Your task to perform on an android device: Open Google Chrome and click the shortcut for Amazon.com Image 0: 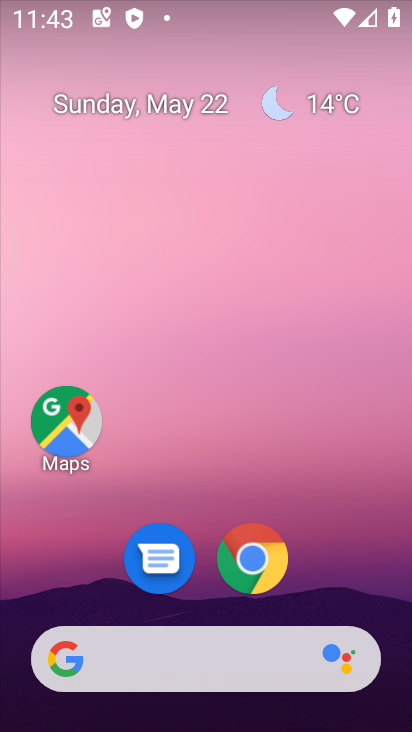
Step 0: click (255, 562)
Your task to perform on an android device: Open Google Chrome and click the shortcut for Amazon.com Image 1: 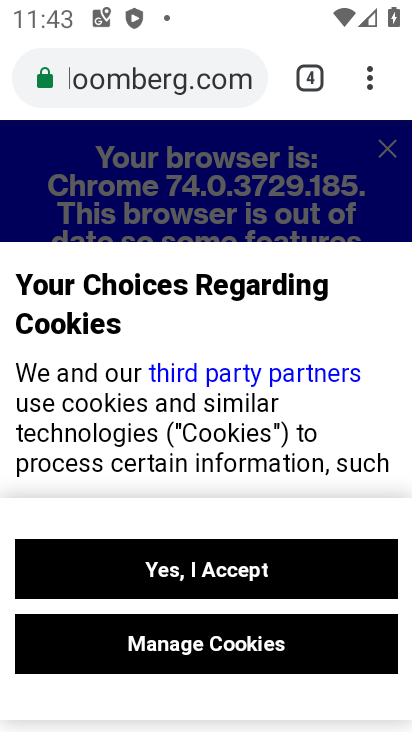
Step 1: click (372, 77)
Your task to perform on an android device: Open Google Chrome and click the shortcut for Amazon.com Image 2: 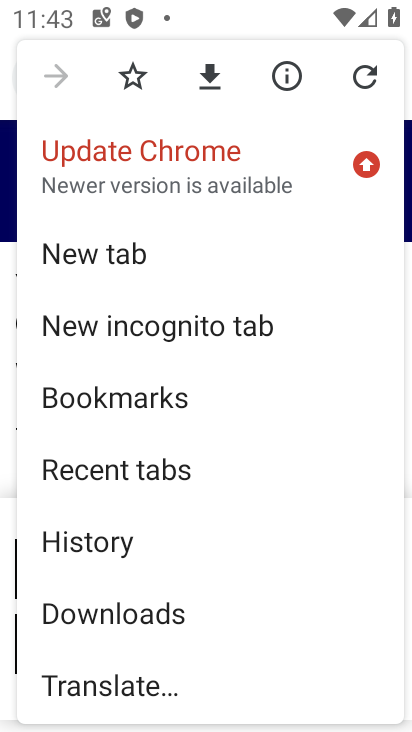
Step 2: click (73, 252)
Your task to perform on an android device: Open Google Chrome and click the shortcut for Amazon.com Image 3: 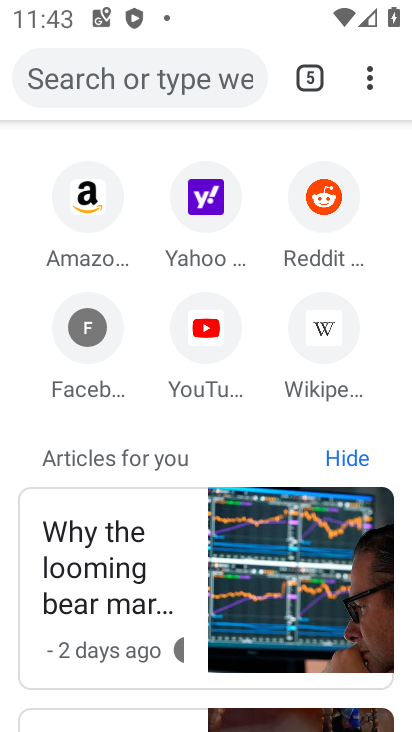
Step 3: click (85, 216)
Your task to perform on an android device: Open Google Chrome and click the shortcut for Amazon.com Image 4: 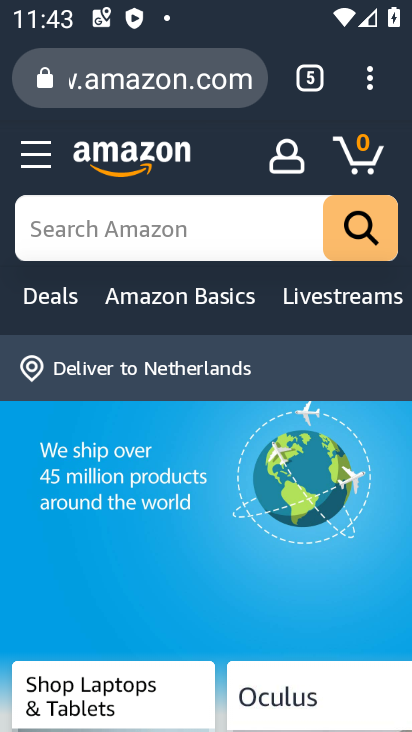
Step 4: task complete